Your task to perform on an android device: check battery use Image 0: 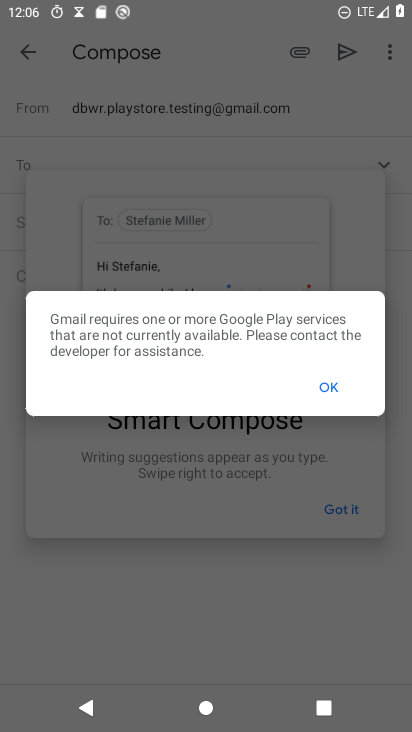
Step 0: press home button
Your task to perform on an android device: check battery use Image 1: 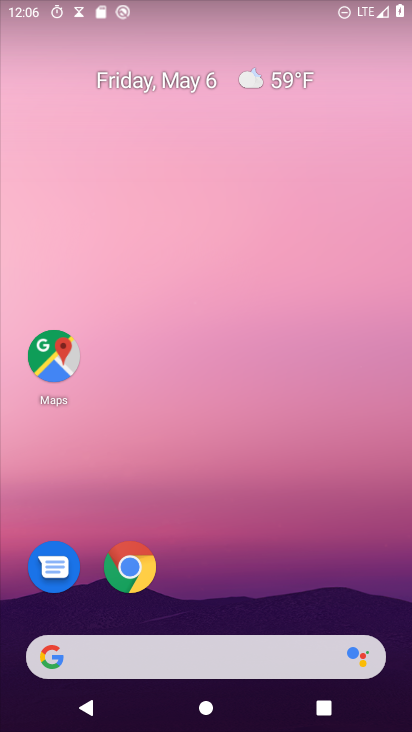
Step 1: drag from (245, 549) to (273, 1)
Your task to perform on an android device: check battery use Image 2: 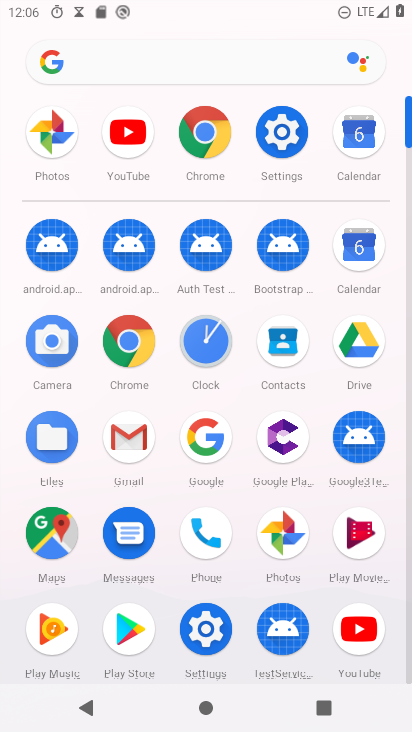
Step 2: click (284, 139)
Your task to perform on an android device: check battery use Image 3: 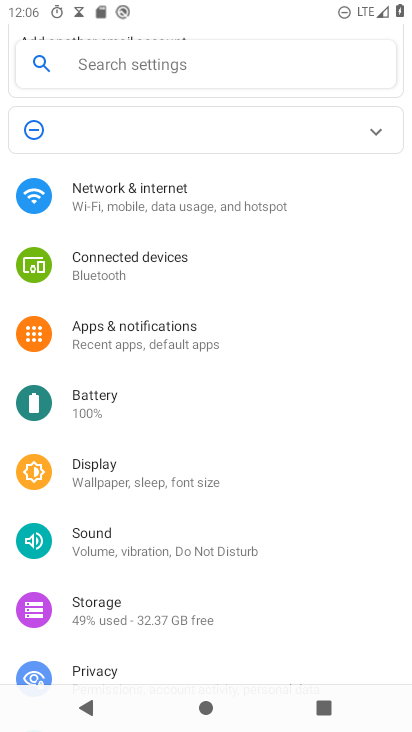
Step 3: click (98, 402)
Your task to perform on an android device: check battery use Image 4: 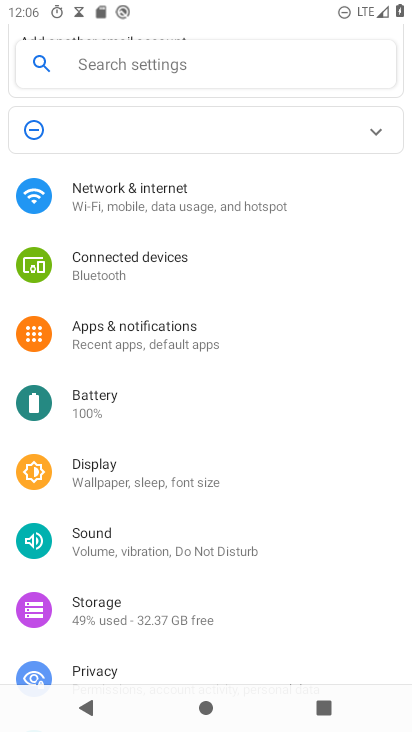
Step 4: click (88, 406)
Your task to perform on an android device: check battery use Image 5: 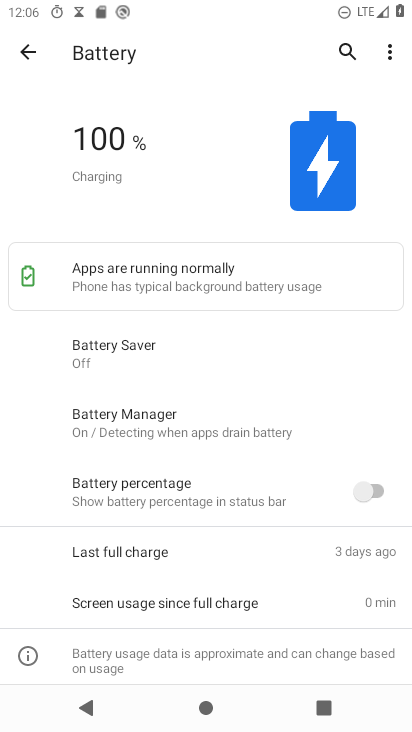
Step 5: click (385, 52)
Your task to perform on an android device: check battery use Image 6: 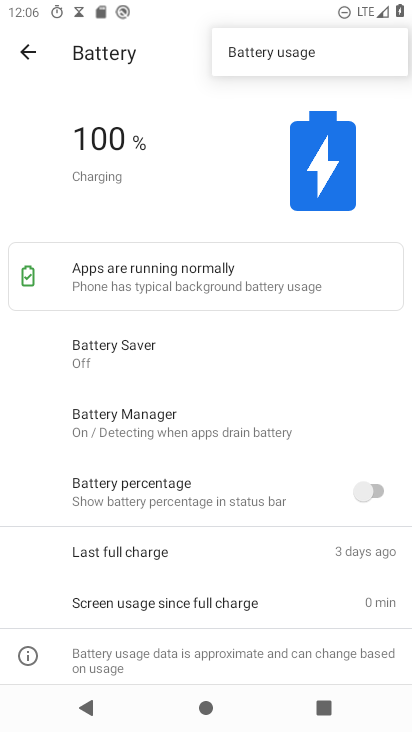
Step 6: click (270, 55)
Your task to perform on an android device: check battery use Image 7: 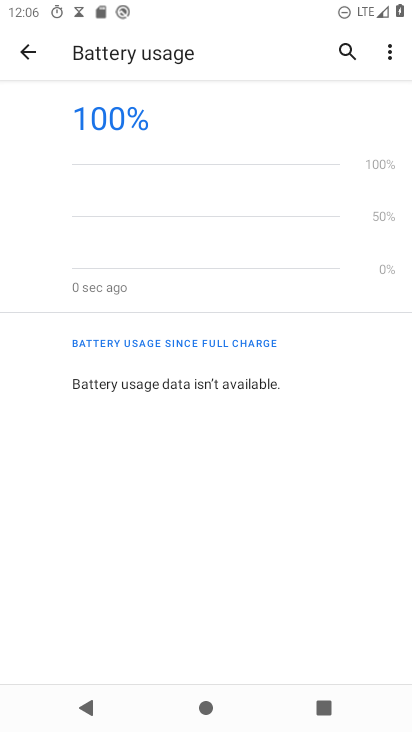
Step 7: task complete